Your task to perform on an android device: Open Yahoo.com Image 0: 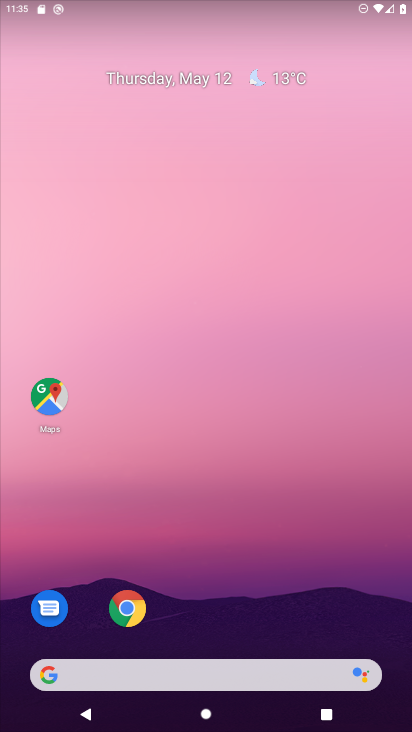
Step 0: drag from (240, 535) to (229, 151)
Your task to perform on an android device: Open Yahoo.com Image 1: 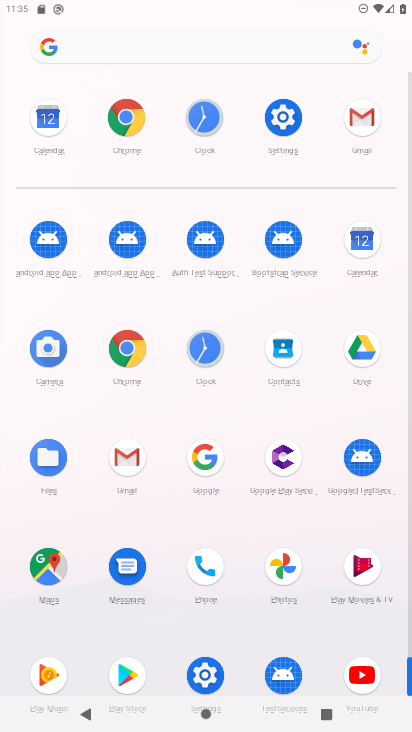
Step 1: click (132, 347)
Your task to perform on an android device: Open Yahoo.com Image 2: 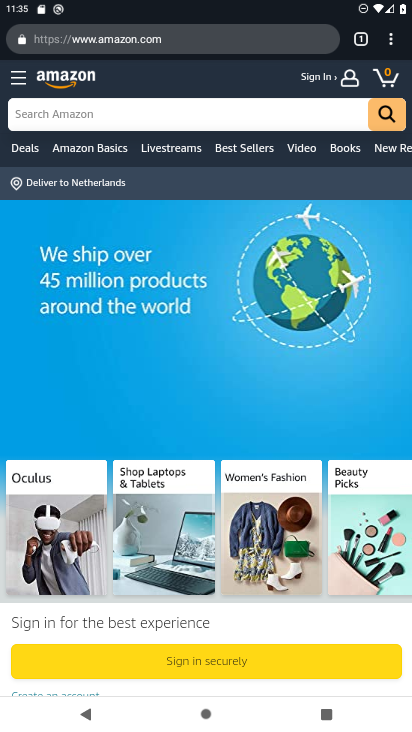
Step 2: press back button
Your task to perform on an android device: Open Yahoo.com Image 3: 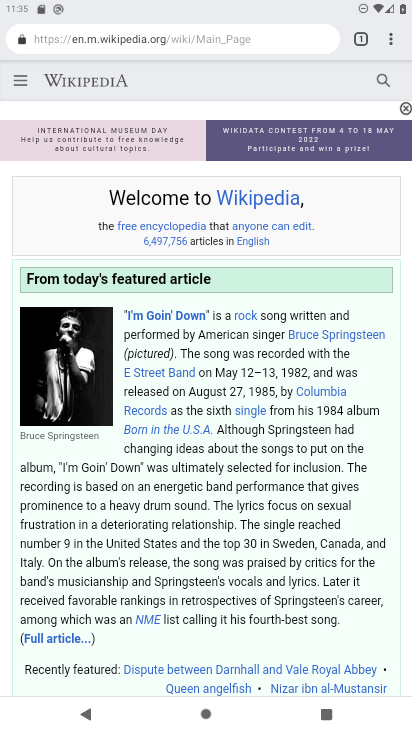
Step 3: press back button
Your task to perform on an android device: Open Yahoo.com Image 4: 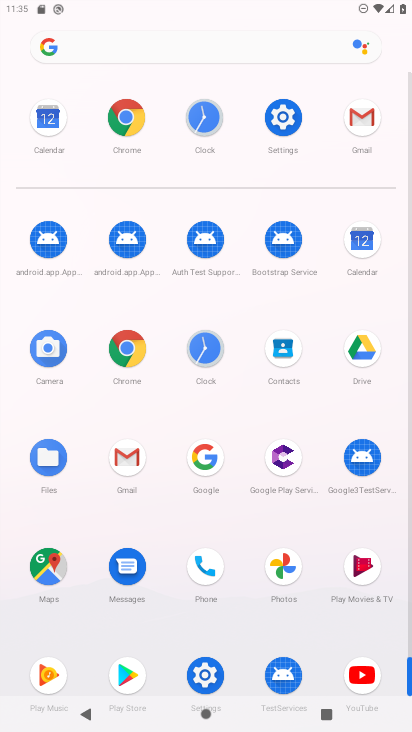
Step 4: click (125, 352)
Your task to perform on an android device: Open Yahoo.com Image 5: 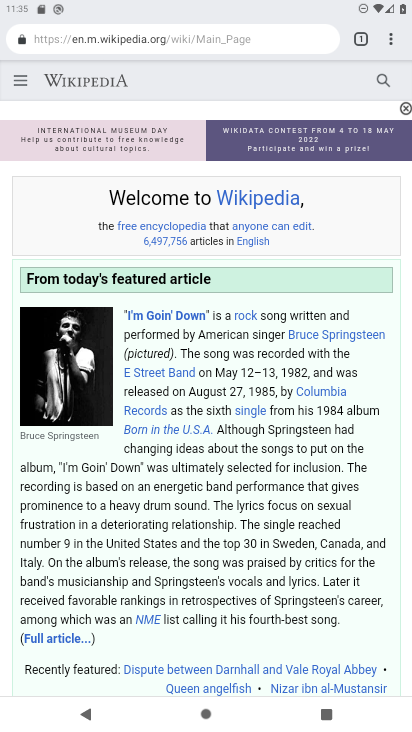
Step 5: click (209, 38)
Your task to perform on an android device: Open Yahoo.com Image 6: 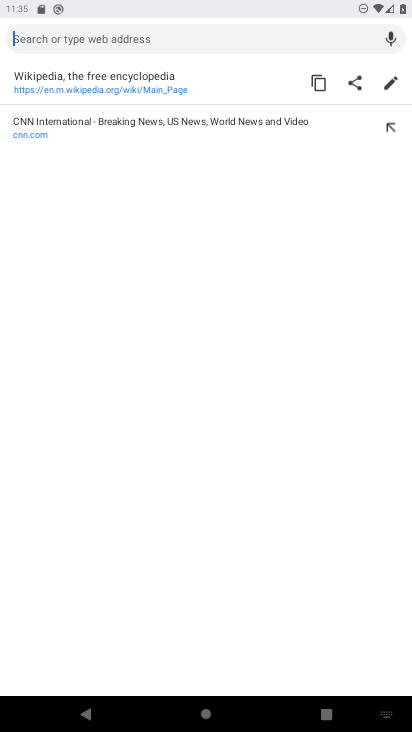
Step 6: type "yahoo.com"
Your task to perform on an android device: Open Yahoo.com Image 7: 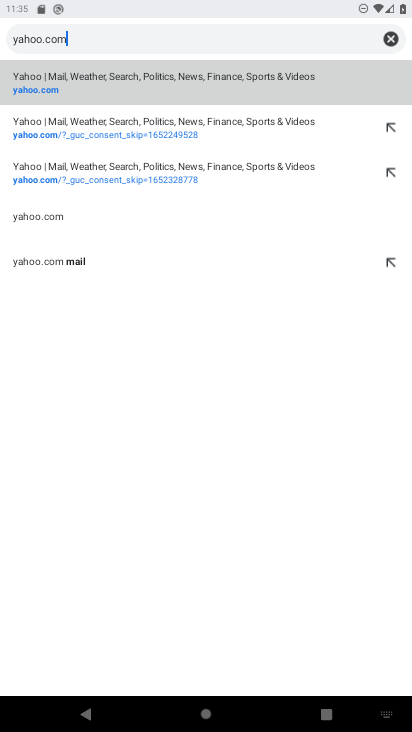
Step 7: click (97, 86)
Your task to perform on an android device: Open Yahoo.com Image 8: 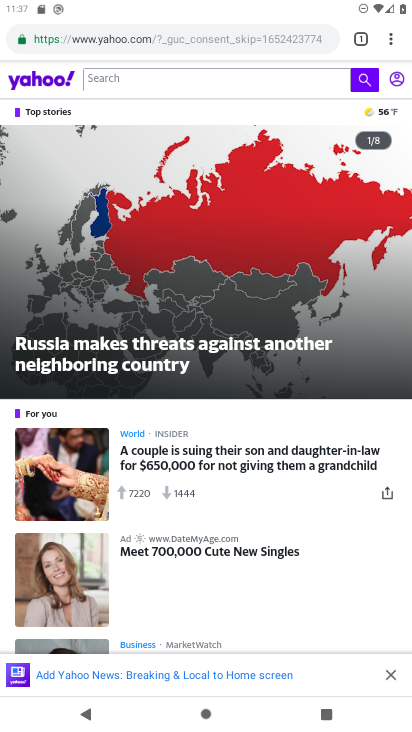
Step 8: task complete